Your task to perform on an android device: toggle location history Image 0: 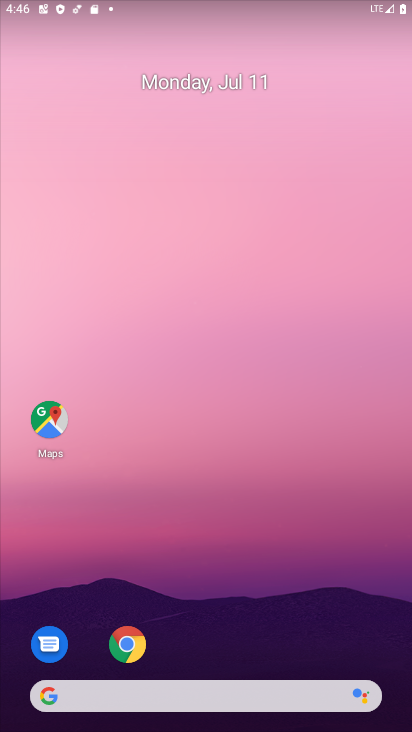
Step 0: press home button
Your task to perform on an android device: toggle location history Image 1: 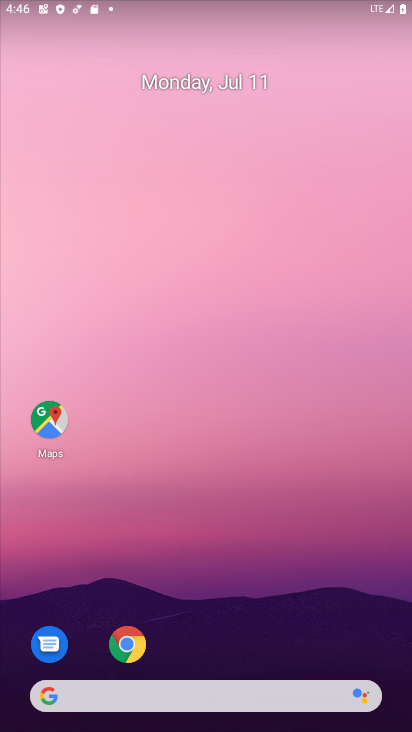
Step 1: drag from (277, 643) to (261, 216)
Your task to perform on an android device: toggle location history Image 2: 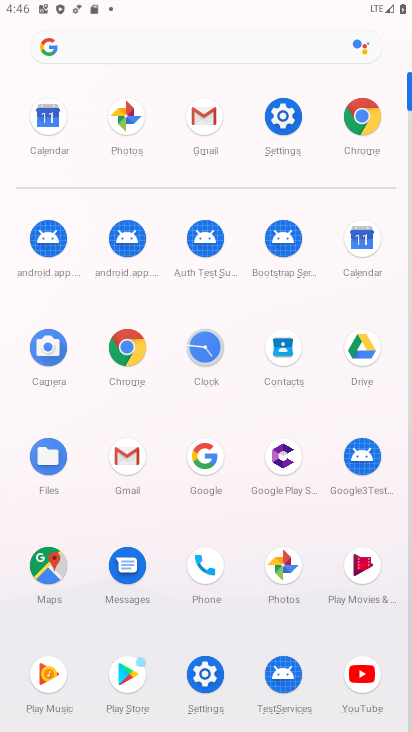
Step 2: click (281, 134)
Your task to perform on an android device: toggle location history Image 3: 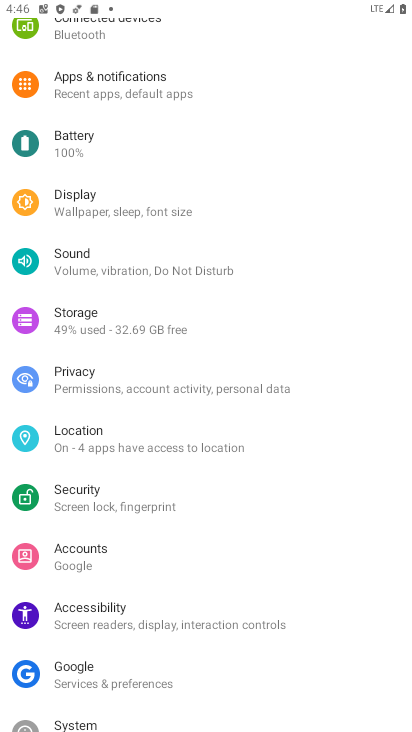
Step 3: click (138, 445)
Your task to perform on an android device: toggle location history Image 4: 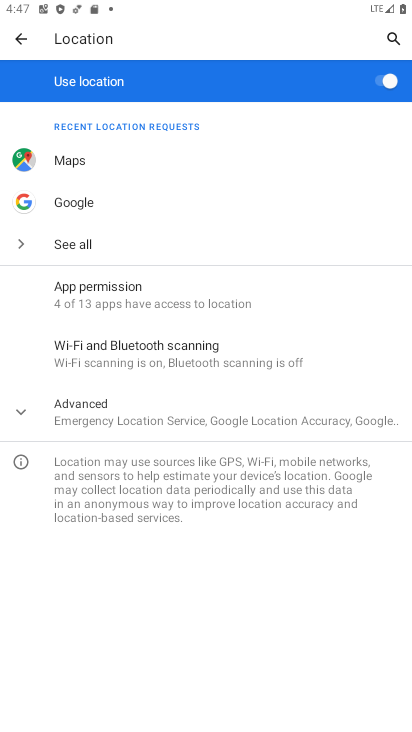
Step 4: click (40, 404)
Your task to perform on an android device: toggle location history Image 5: 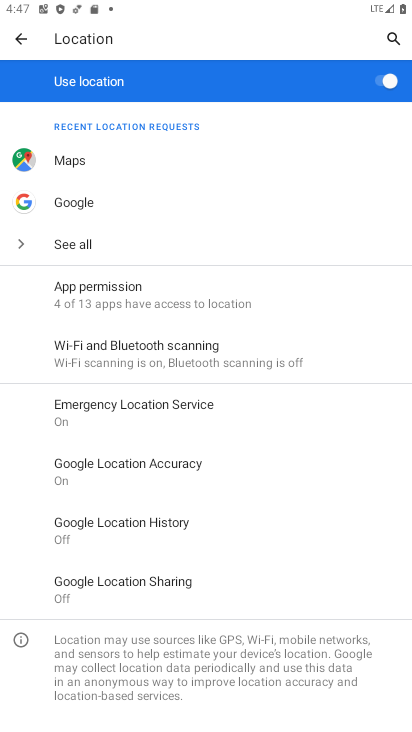
Step 5: click (154, 522)
Your task to perform on an android device: toggle location history Image 6: 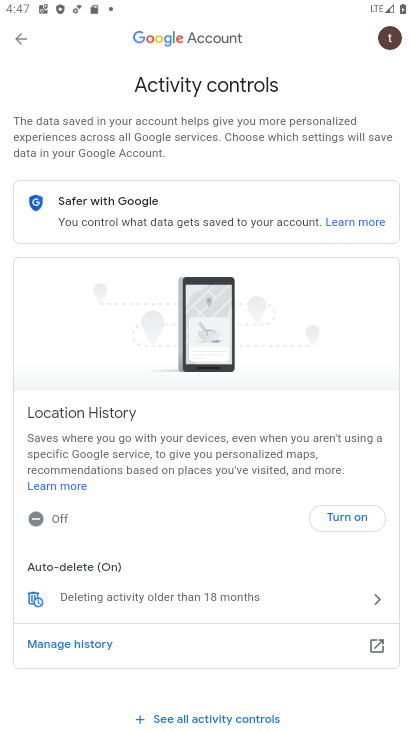
Step 6: click (357, 519)
Your task to perform on an android device: toggle location history Image 7: 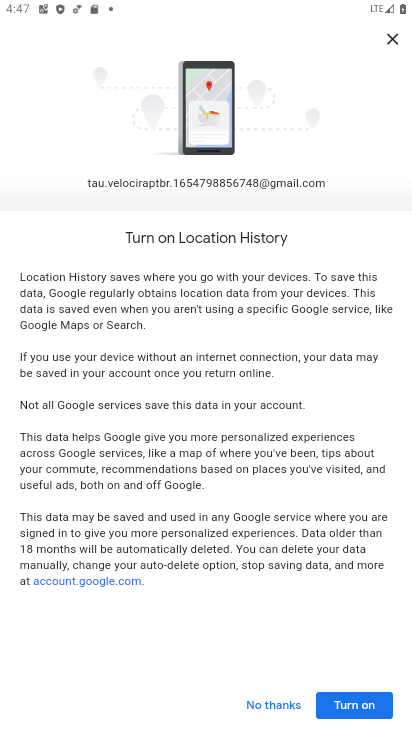
Step 7: click (368, 710)
Your task to perform on an android device: toggle location history Image 8: 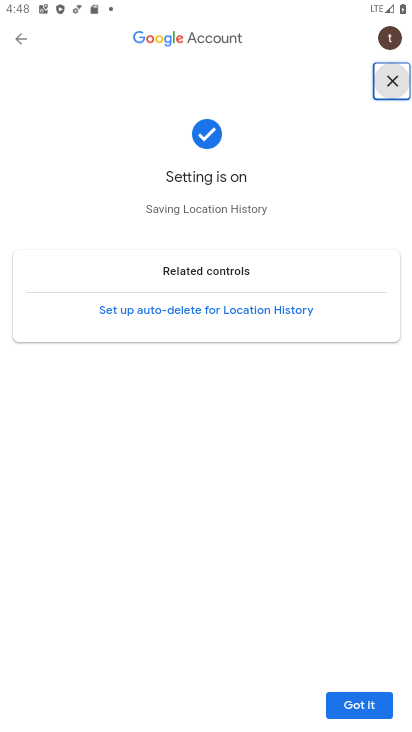
Step 8: click (364, 702)
Your task to perform on an android device: toggle location history Image 9: 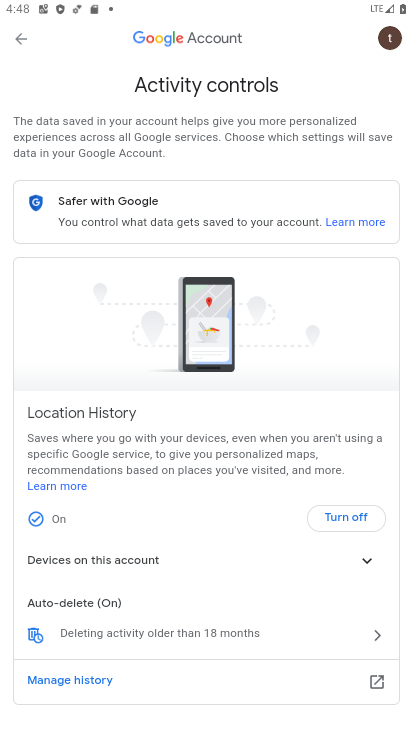
Step 9: task complete